Your task to perform on an android device: open wifi settings Image 0: 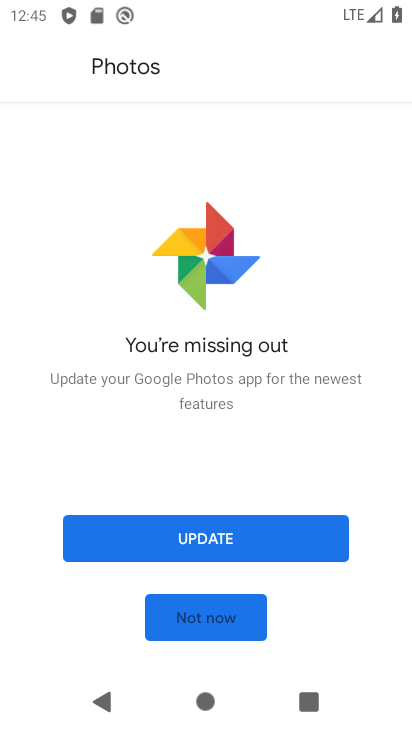
Step 0: press home button
Your task to perform on an android device: open wifi settings Image 1: 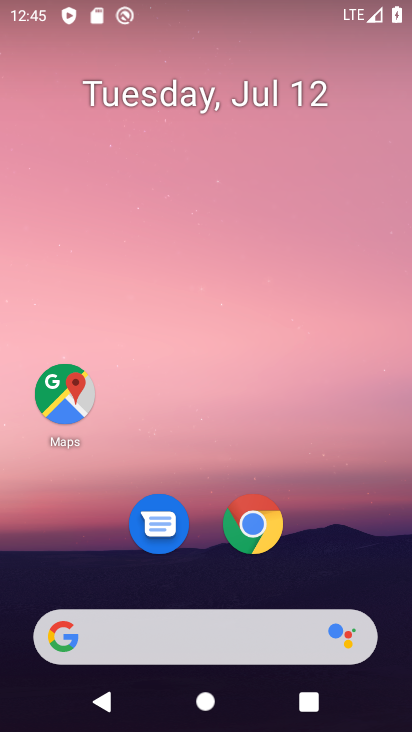
Step 1: drag from (256, 457) to (261, 18)
Your task to perform on an android device: open wifi settings Image 2: 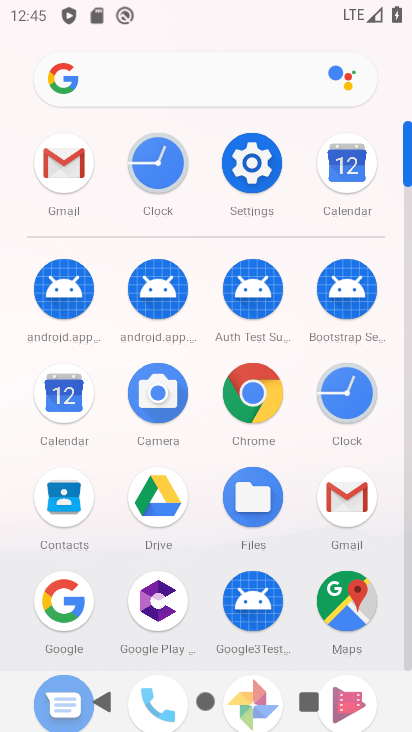
Step 2: click (251, 156)
Your task to perform on an android device: open wifi settings Image 3: 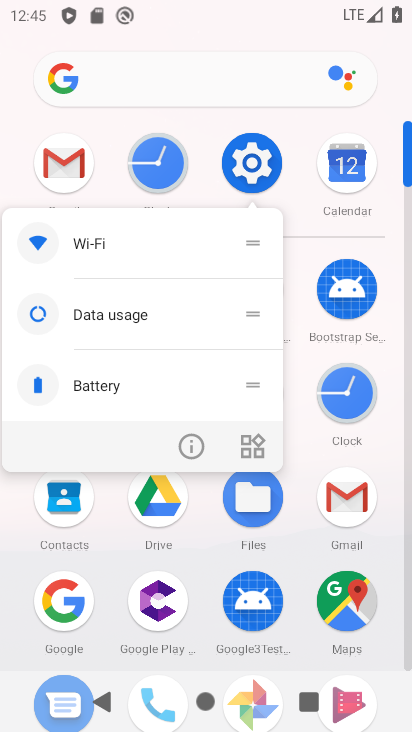
Step 3: click (251, 154)
Your task to perform on an android device: open wifi settings Image 4: 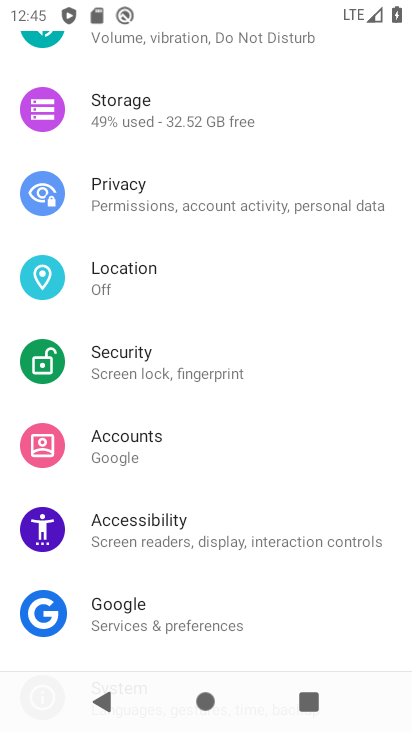
Step 4: drag from (251, 154) to (275, 634)
Your task to perform on an android device: open wifi settings Image 5: 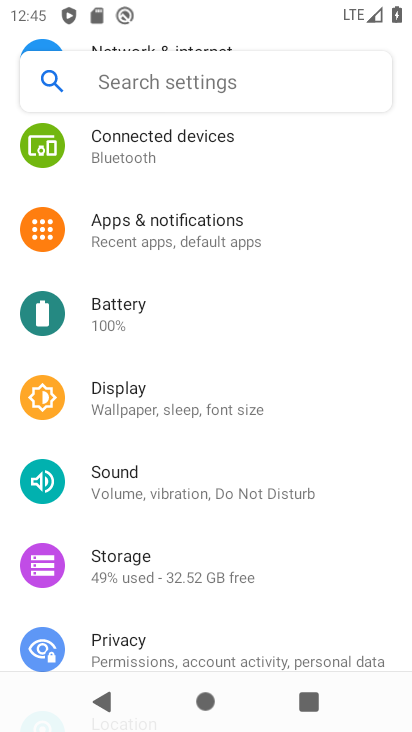
Step 5: drag from (249, 192) to (261, 598)
Your task to perform on an android device: open wifi settings Image 6: 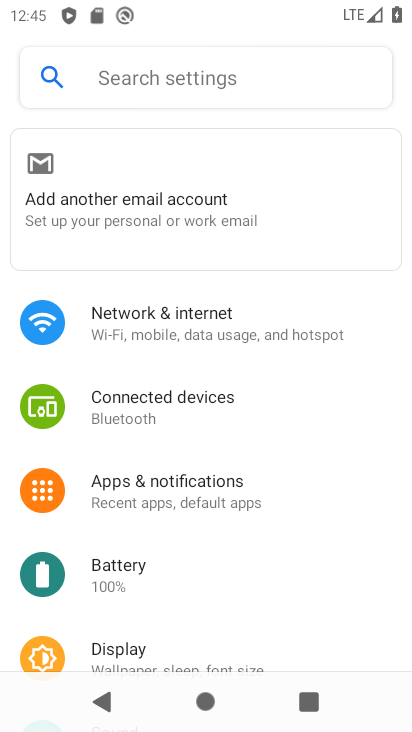
Step 6: click (231, 323)
Your task to perform on an android device: open wifi settings Image 7: 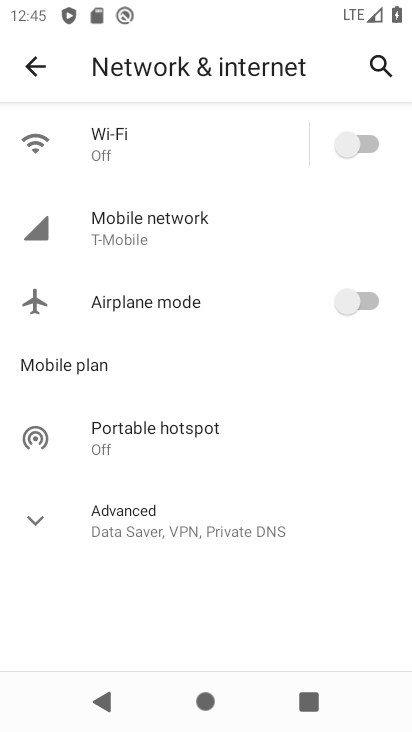
Step 7: click (112, 132)
Your task to perform on an android device: open wifi settings Image 8: 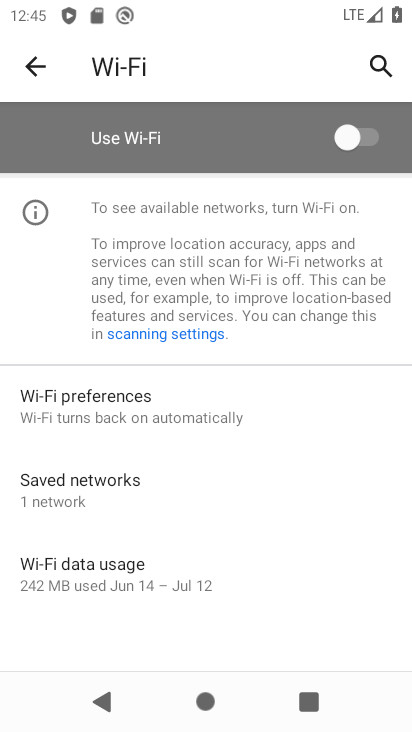
Step 8: task complete